Your task to perform on an android device: star an email in the gmail app Image 0: 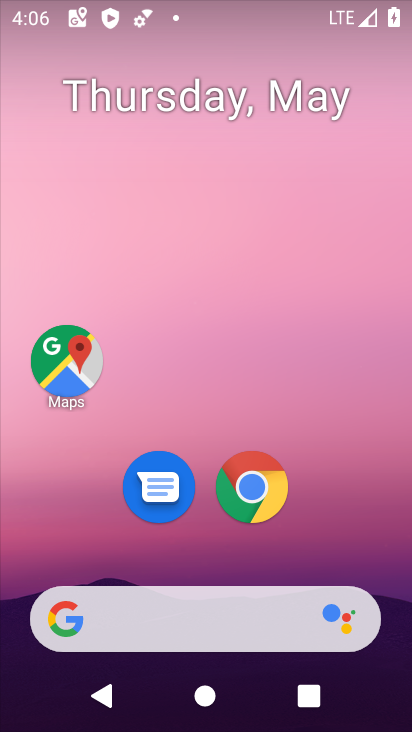
Step 0: drag from (197, 606) to (304, 145)
Your task to perform on an android device: star an email in the gmail app Image 1: 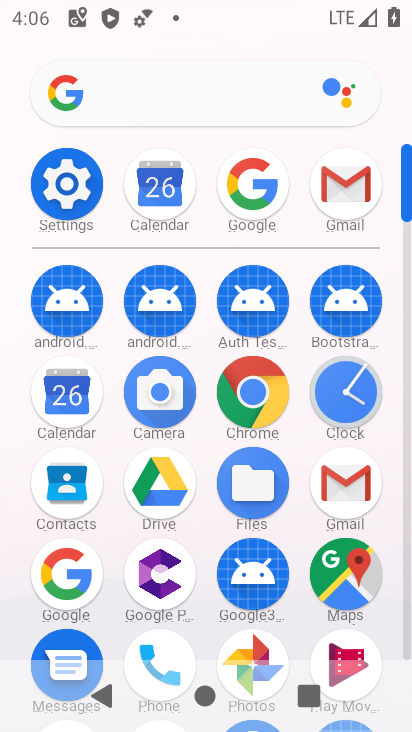
Step 1: drag from (207, 511) to (279, 263)
Your task to perform on an android device: star an email in the gmail app Image 2: 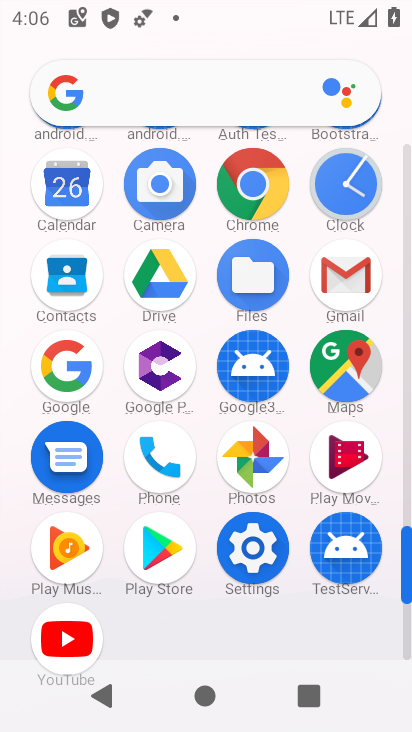
Step 2: click (346, 291)
Your task to perform on an android device: star an email in the gmail app Image 3: 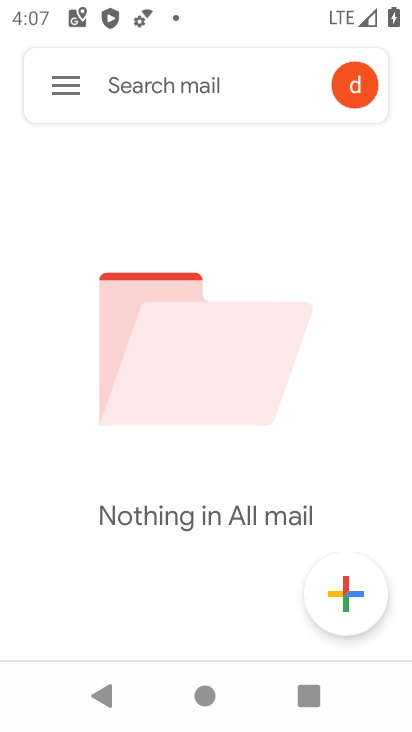
Step 3: click (73, 82)
Your task to perform on an android device: star an email in the gmail app Image 4: 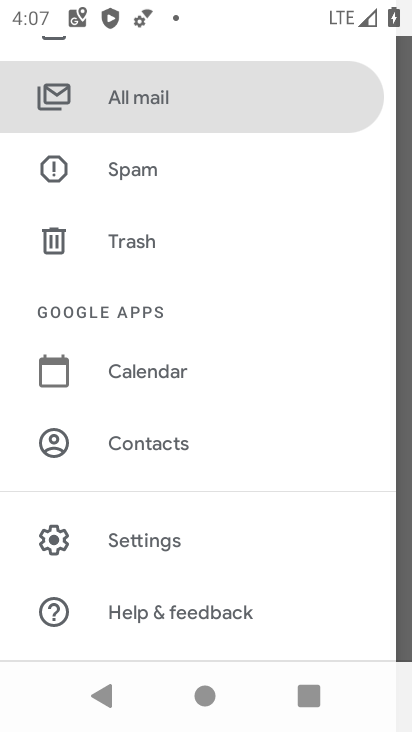
Step 4: click (264, 110)
Your task to perform on an android device: star an email in the gmail app Image 5: 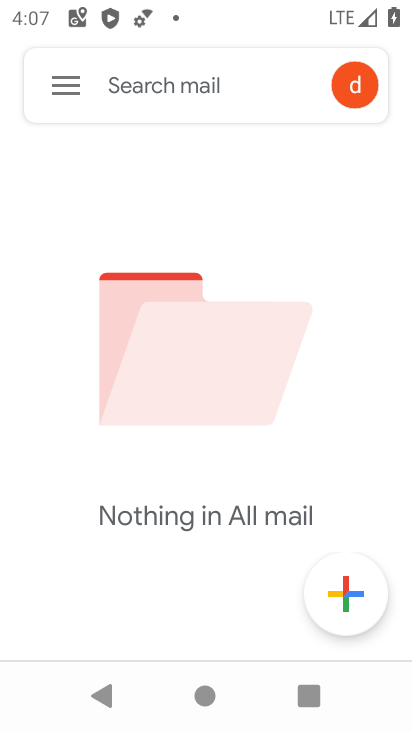
Step 5: task complete